Your task to perform on an android device: refresh tabs in the chrome app Image 0: 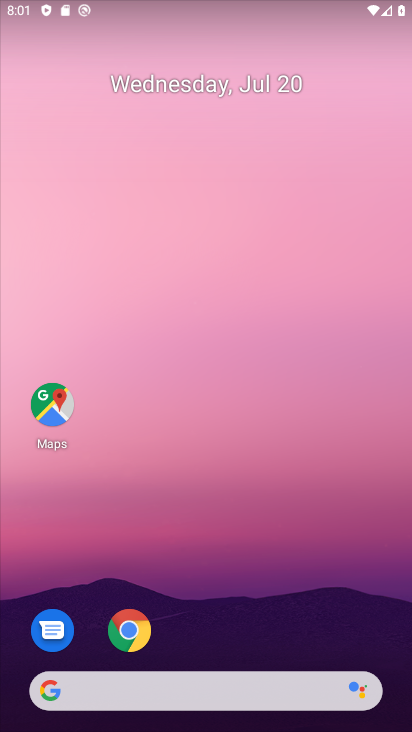
Step 0: click (125, 627)
Your task to perform on an android device: refresh tabs in the chrome app Image 1: 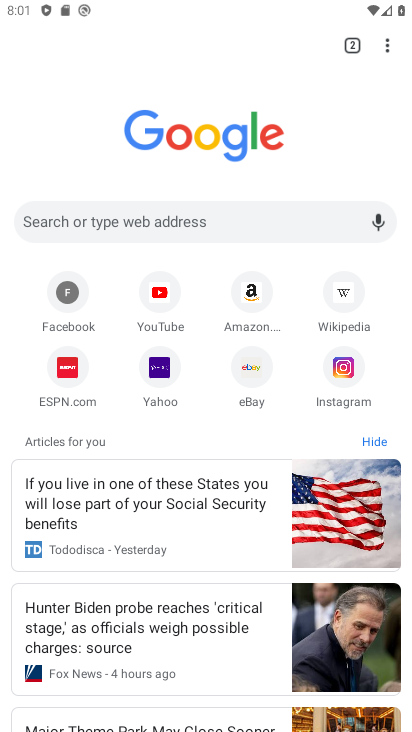
Step 1: click (385, 42)
Your task to perform on an android device: refresh tabs in the chrome app Image 2: 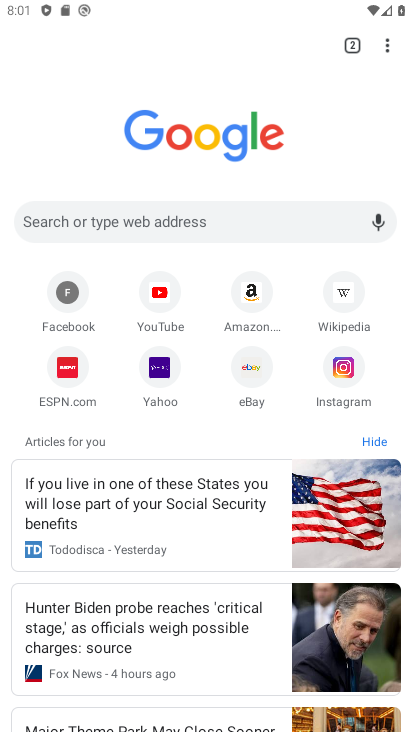
Step 2: click (385, 42)
Your task to perform on an android device: refresh tabs in the chrome app Image 3: 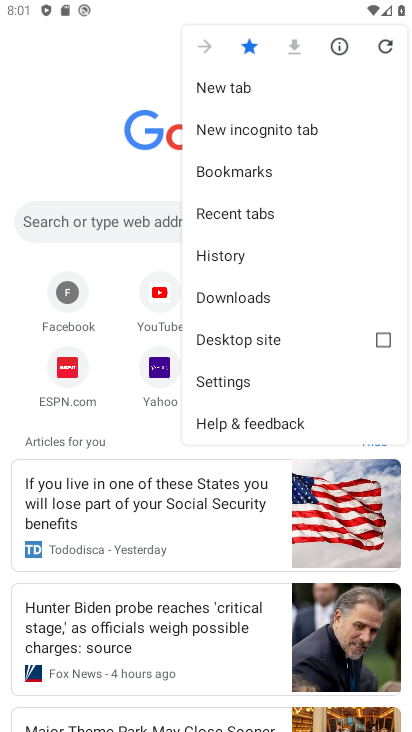
Step 3: click (240, 85)
Your task to perform on an android device: refresh tabs in the chrome app Image 4: 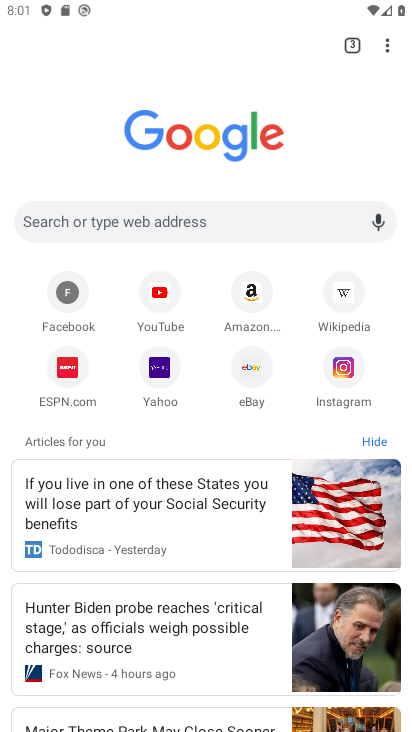
Step 4: task complete